Your task to perform on an android device: Go to Maps Image 0: 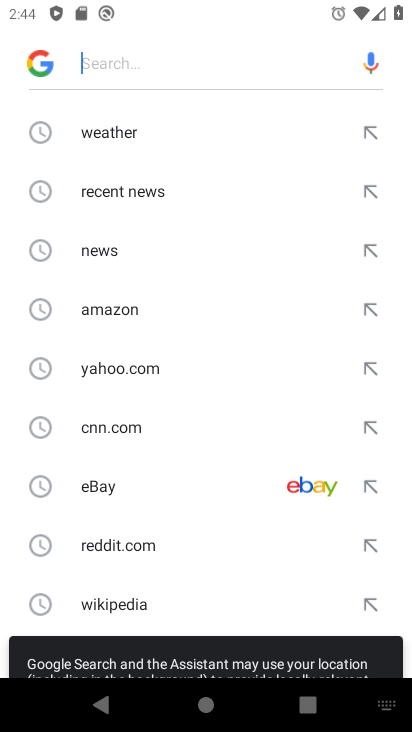
Step 0: press home button
Your task to perform on an android device: Go to Maps Image 1: 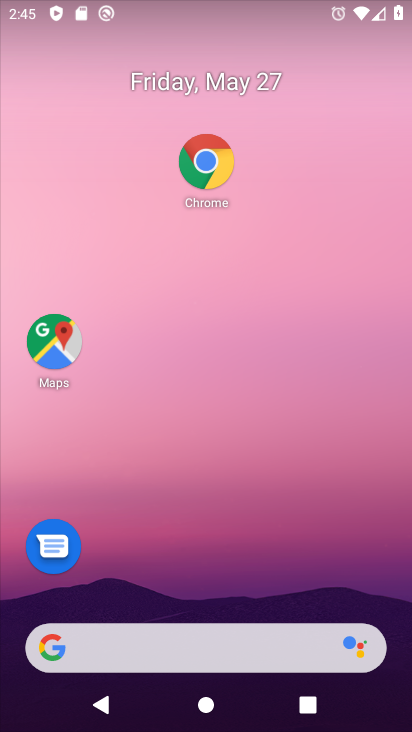
Step 1: click (58, 346)
Your task to perform on an android device: Go to Maps Image 2: 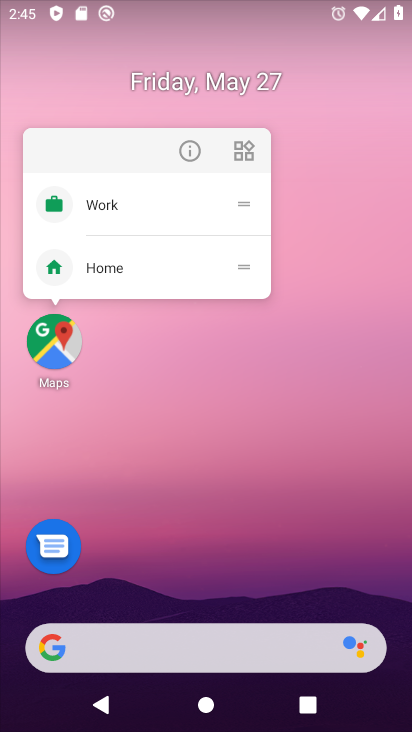
Step 2: click (47, 351)
Your task to perform on an android device: Go to Maps Image 3: 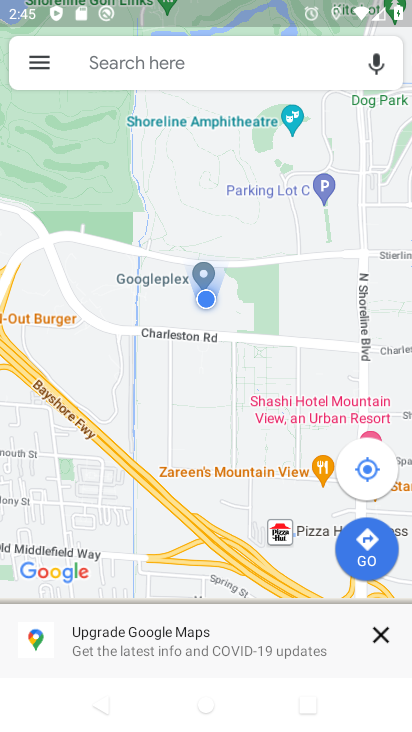
Step 3: task complete